Your task to perform on an android device: Go to wifi settings Image 0: 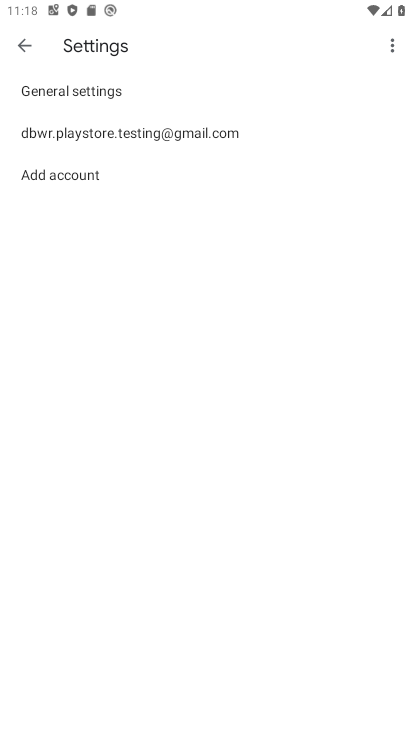
Step 0: press home button
Your task to perform on an android device: Go to wifi settings Image 1: 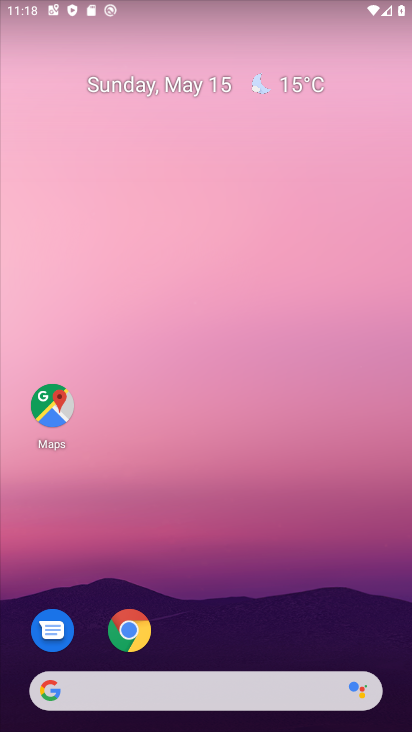
Step 1: drag from (196, 724) to (191, 174)
Your task to perform on an android device: Go to wifi settings Image 2: 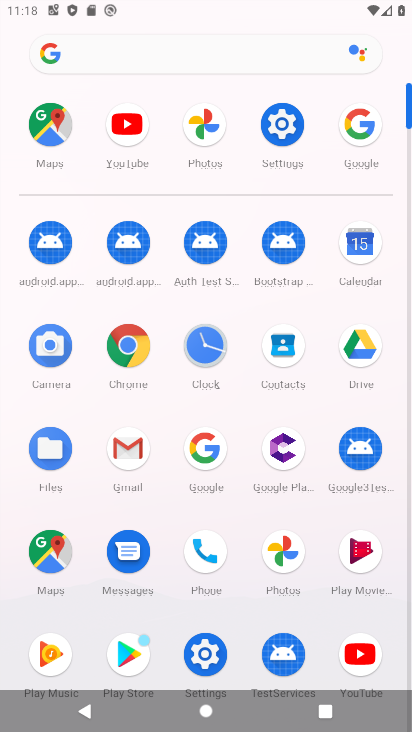
Step 2: click (278, 122)
Your task to perform on an android device: Go to wifi settings Image 3: 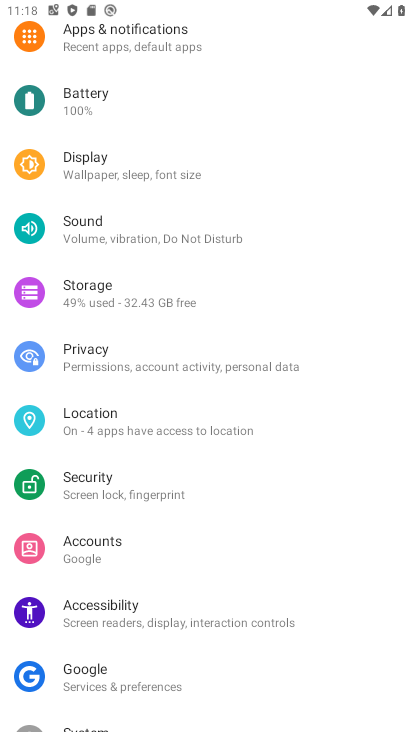
Step 3: drag from (268, 130) to (281, 635)
Your task to perform on an android device: Go to wifi settings Image 4: 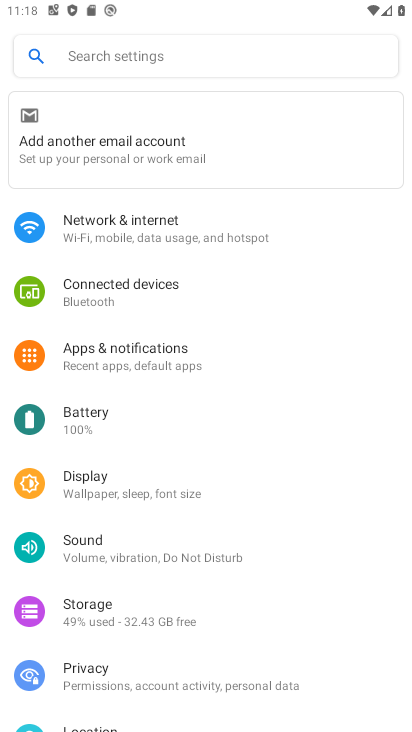
Step 4: click (102, 232)
Your task to perform on an android device: Go to wifi settings Image 5: 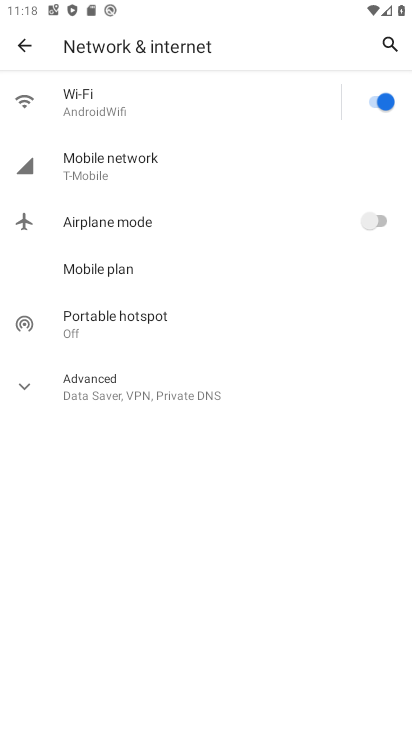
Step 5: click (94, 92)
Your task to perform on an android device: Go to wifi settings Image 6: 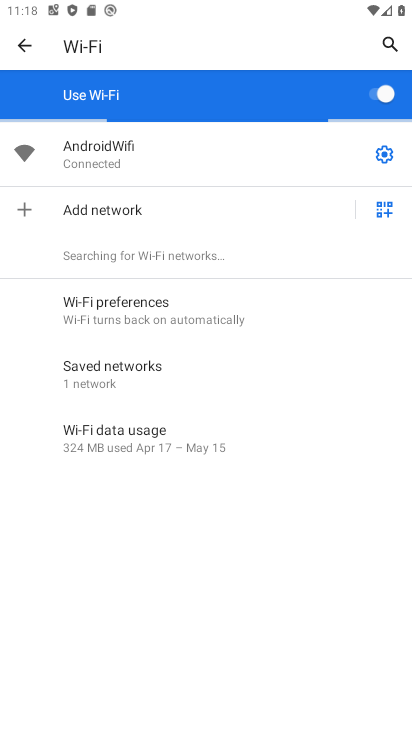
Step 6: task complete